Your task to perform on an android device: Open calendar and show me the third week of next month Image 0: 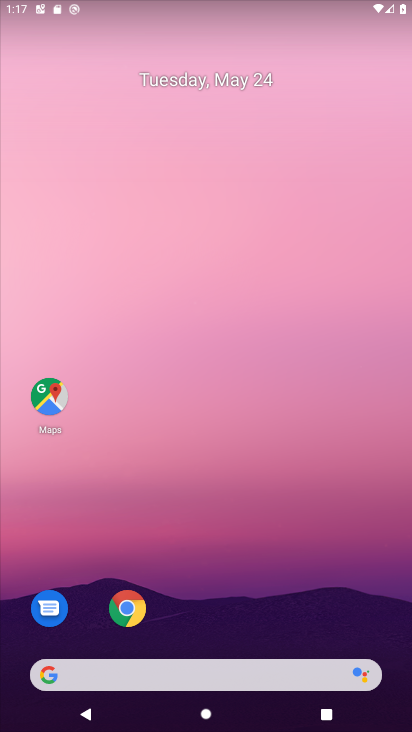
Step 0: drag from (238, 593) to (221, 150)
Your task to perform on an android device: Open calendar and show me the third week of next month Image 1: 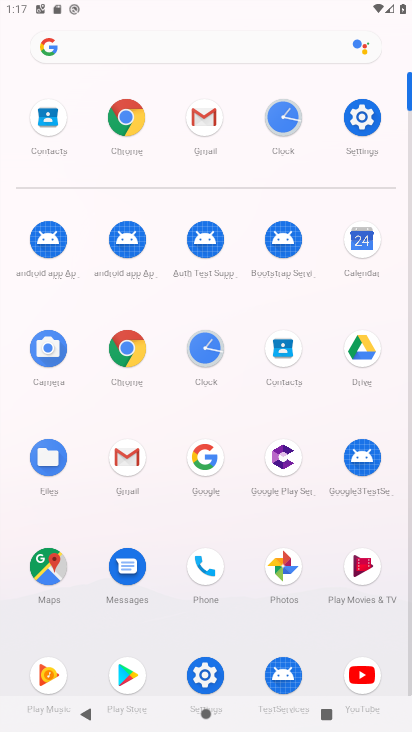
Step 1: click (364, 232)
Your task to perform on an android device: Open calendar and show me the third week of next month Image 2: 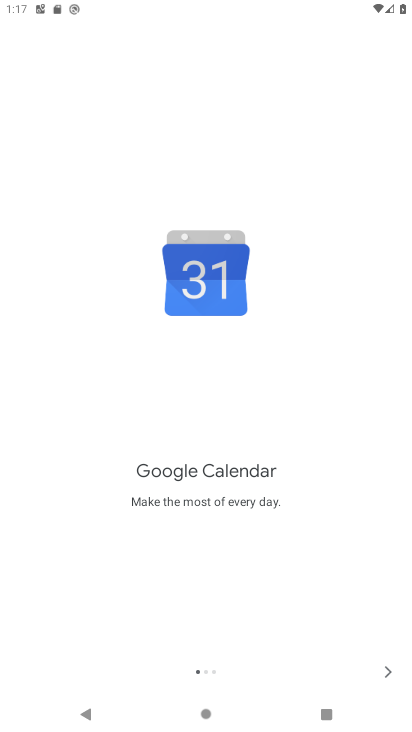
Step 2: click (381, 677)
Your task to perform on an android device: Open calendar and show me the third week of next month Image 3: 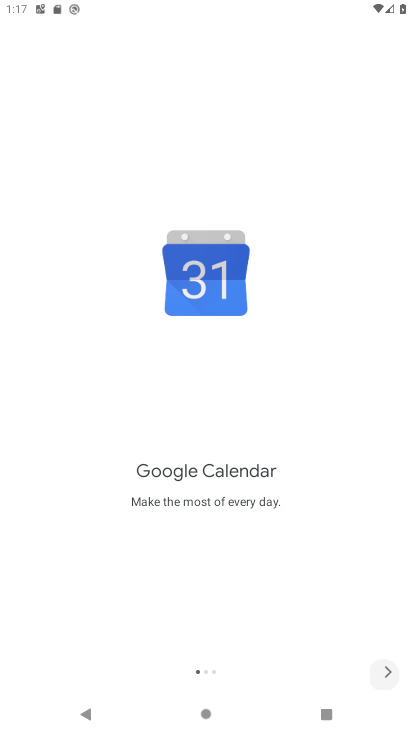
Step 3: click (381, 677)
Your task to perform on an android device: Open calendar and show me the third week of next month Image 4: 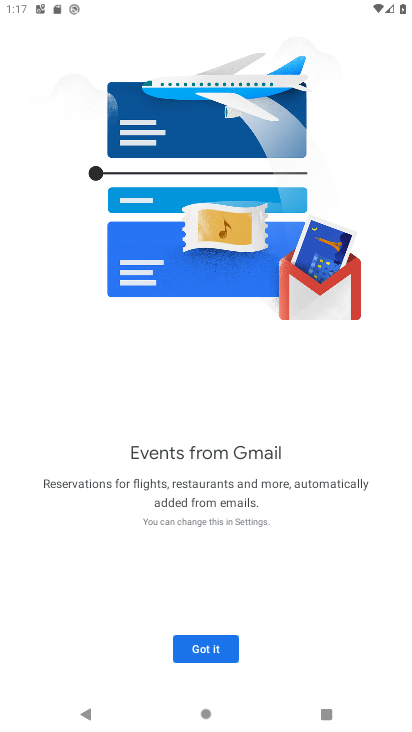
Step 4: click (381, 677)
Your task to perform on an android device: Open calendar and show me the third week of next month Image 5: 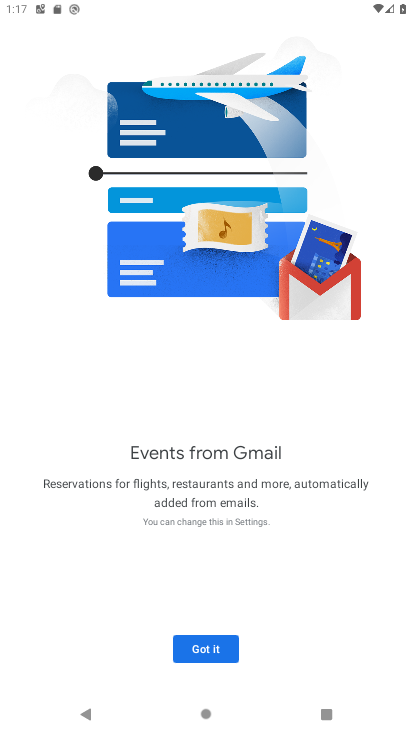
Step 5: click (219, 639)
Your task to perform on an android device: Open calendar and show me the third week of next month Image 6: 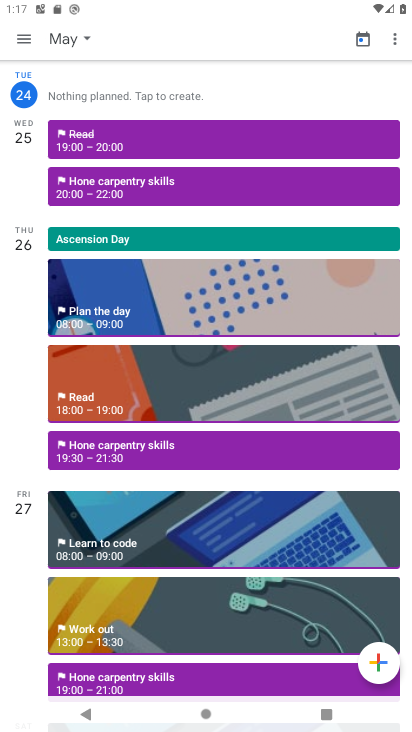
Step 6: click (88, 37)
Your task to perform on an android device: Open calendar and show me the third week of next month Image 7: 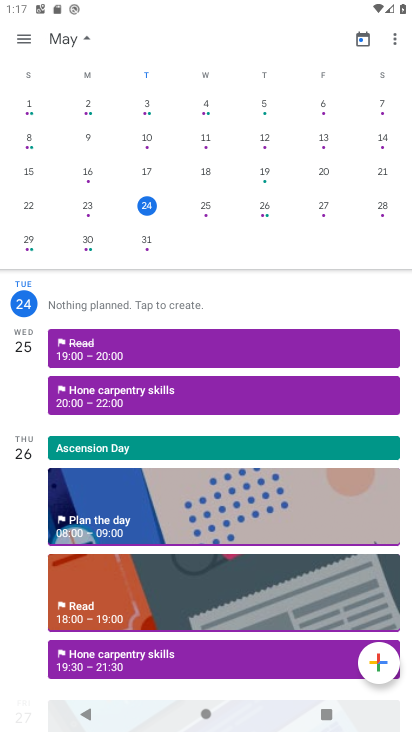
Step 7: drag from (397, 191) to (30, 150)
Your task to perform on an android device: Open calendar and show me the third week of next month Image 8: 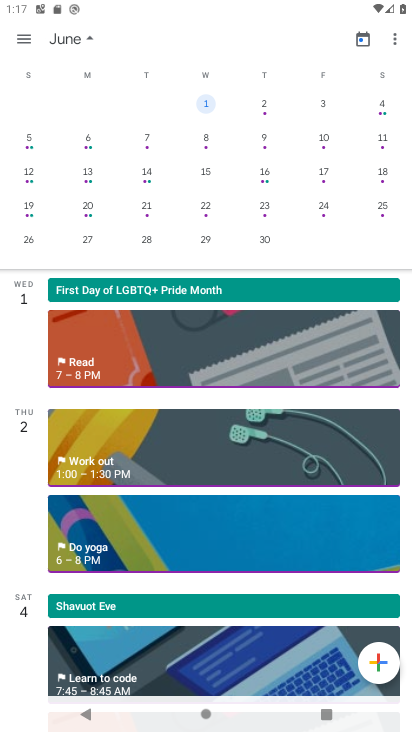
Step 8: click (209, 205)
Your task to perform on an android device: Open calendar and show me the third week of next month Image 9: 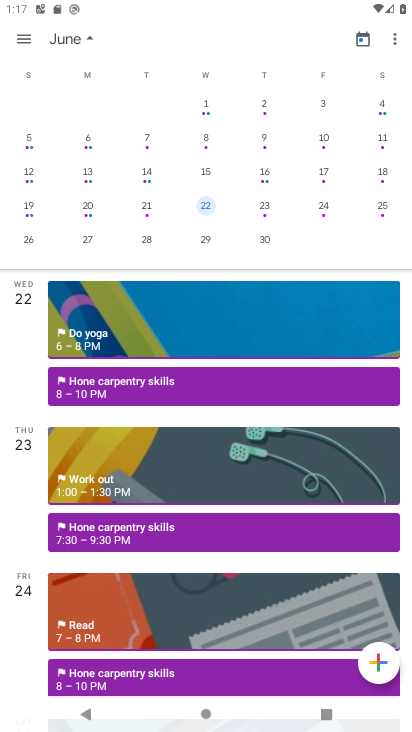
Step 9: task complete